Your task to perform on an android device: Open the web browser Image 0: 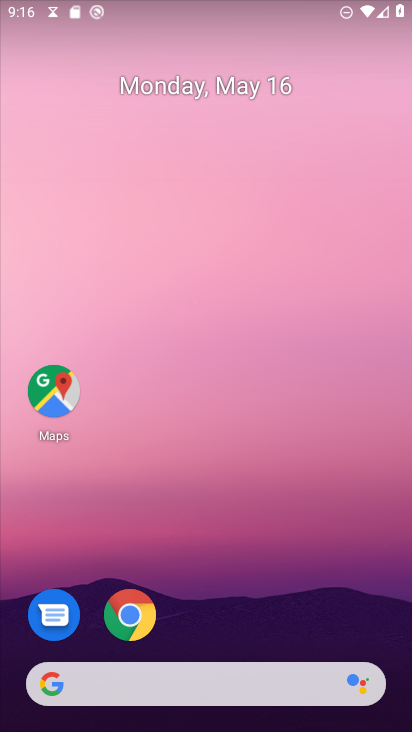
Step 0: press home button
Your task to perform on an android device: Open the web browser Image 1: 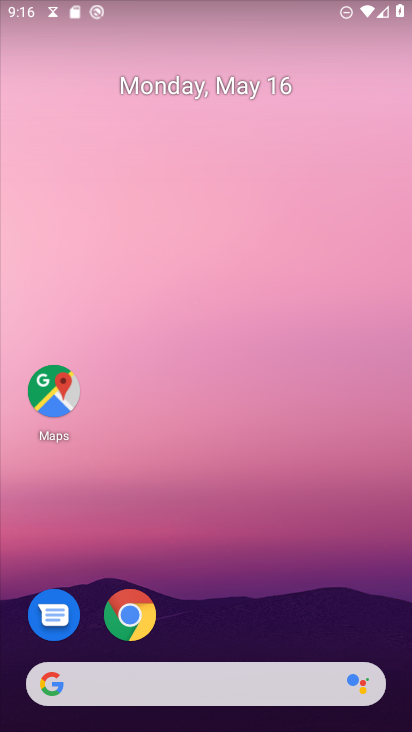
Step 1: task complete